Your task to perform on an android device: Open eBay Image 0: 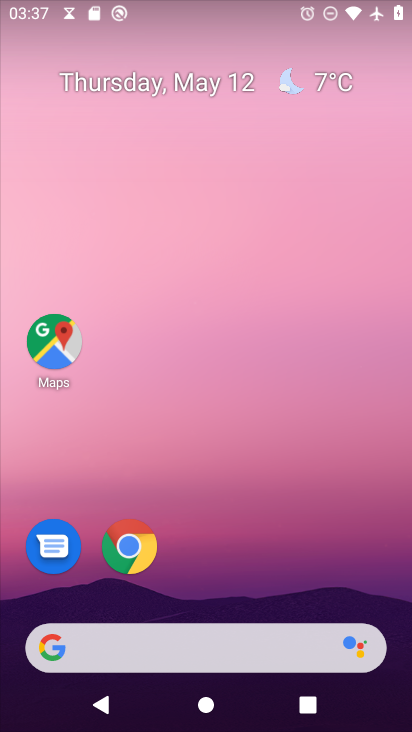
Step 0: drag from (186, 644) to (332, 55)
Your task to perform on an android device: Open eBay Image 1: 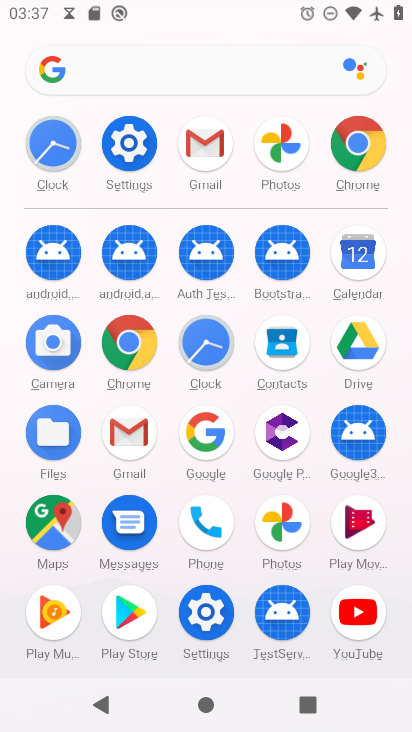
Step 1: click (360, 155)
Your task to perform on an android device: Open eBay Image 2: 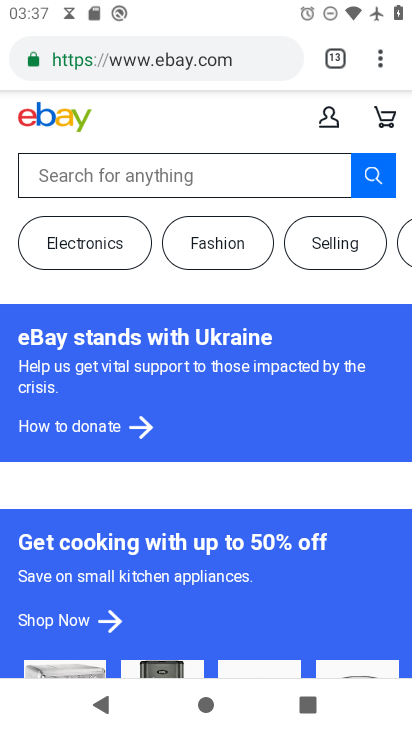
Step 2: task complete